Your task to perform on an android device: Open calendar and show me the second week of next month Image 0: 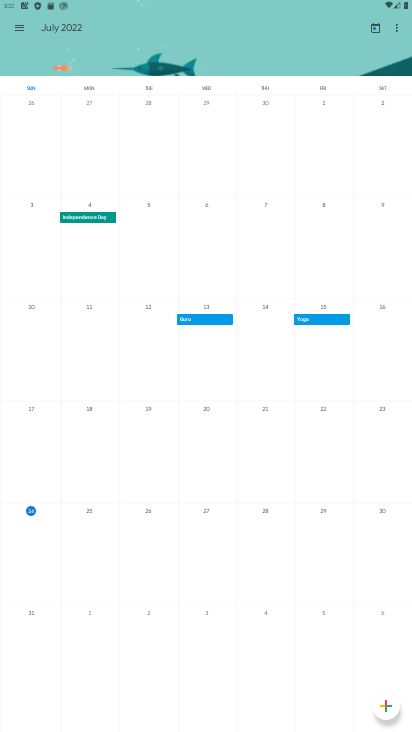
Step 0: press home button
Your task to perform on an android device: Open calendar and show me the second week of next month Image 1: 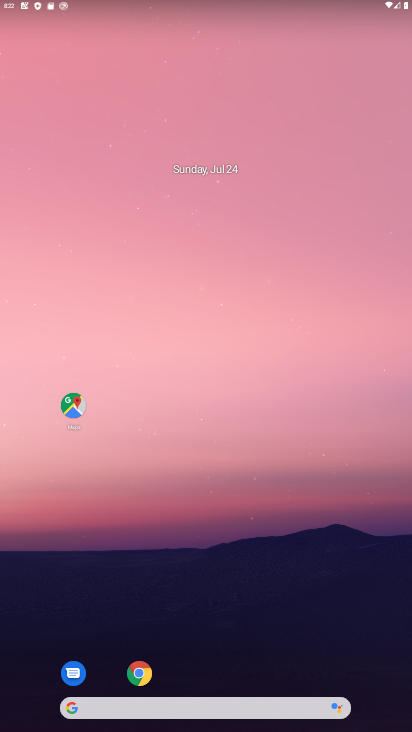
Step 1: drag from (173, 673) to (170, 54)
Your task to perform on an android device: Open calendar and show me the second week of next month Image 2: 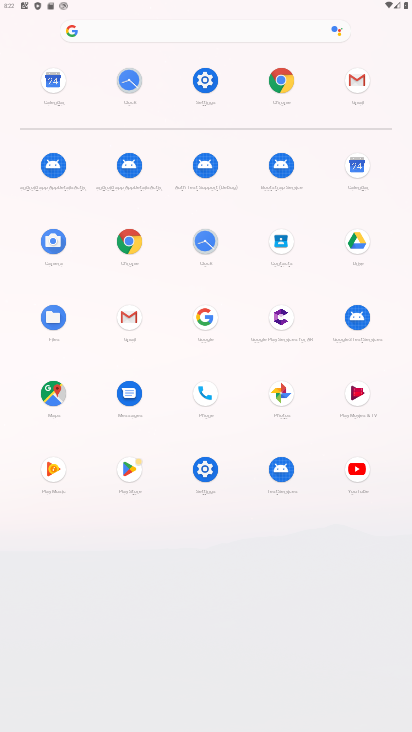
Step 2: click (46, 93)
Your task to perform on an android device: Open calendar and show me the second week of next month Image 3: 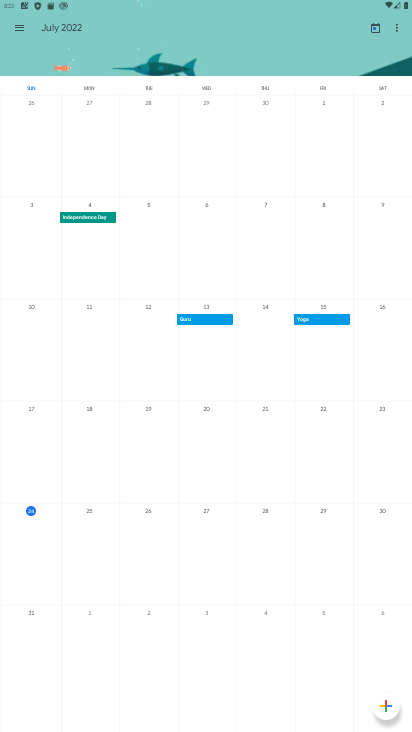
Step 3: drag from (302, 216) to (10, 231)
Your task to perform on an android device: Open calendar and show me the second week of next month Image 4: 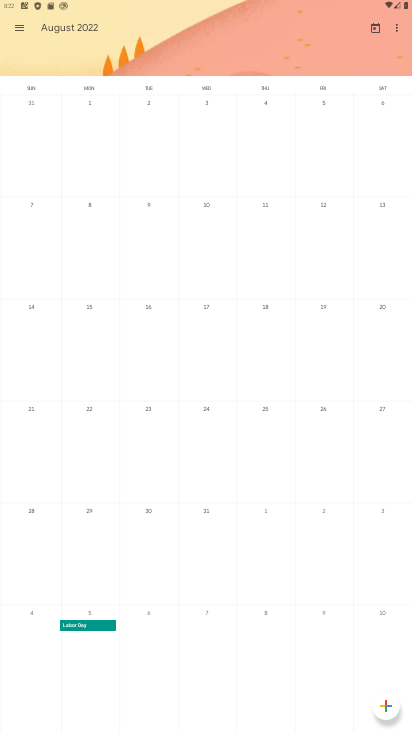
Step 4: click (35, 212)
Your task to perform on an android device: Open calendar and show me the second week of next month Image 5: 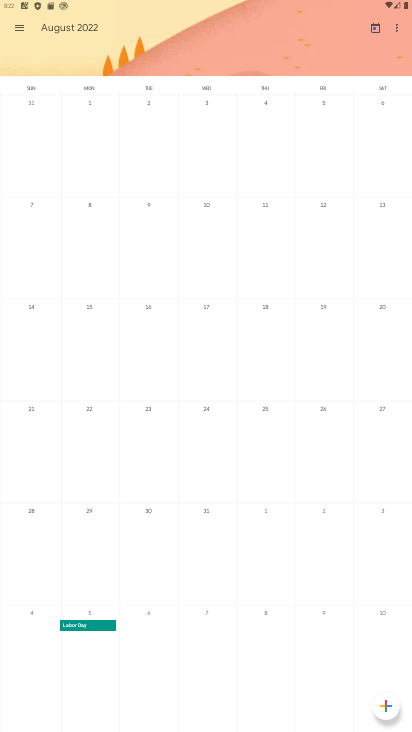
Step 5: click (35, 212)
Your task to perform on an android device: Open calendar and show me the second week of next month Image 6: 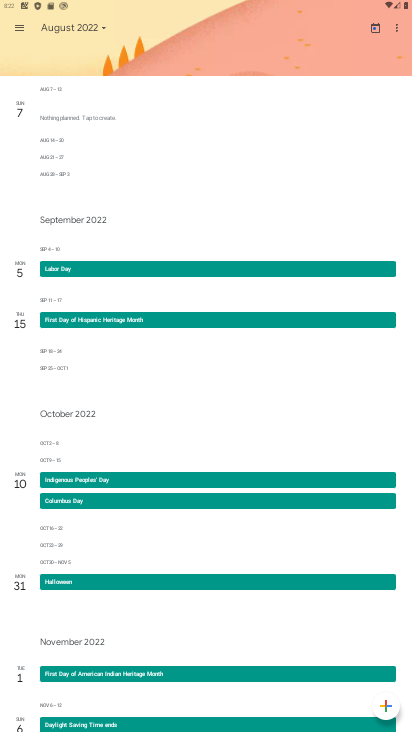
Step 6: task complete